Your task to perform on an android device: open chrome privacy settings Image 0: 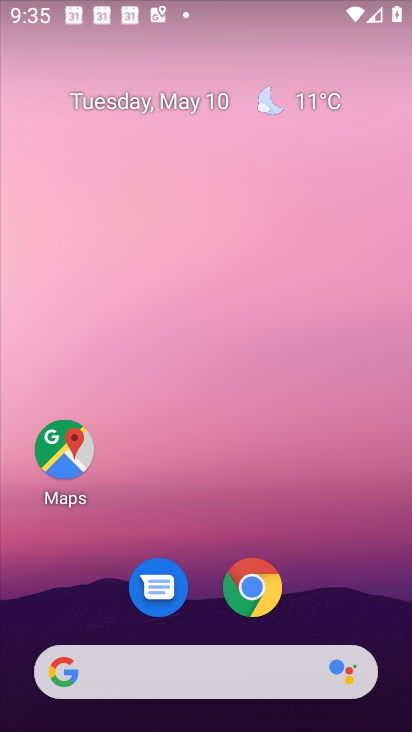
Step 0: drag from (359, 553) to (320, 132)
Your task to perform on an android device: open chrome privacy settings Image 1: 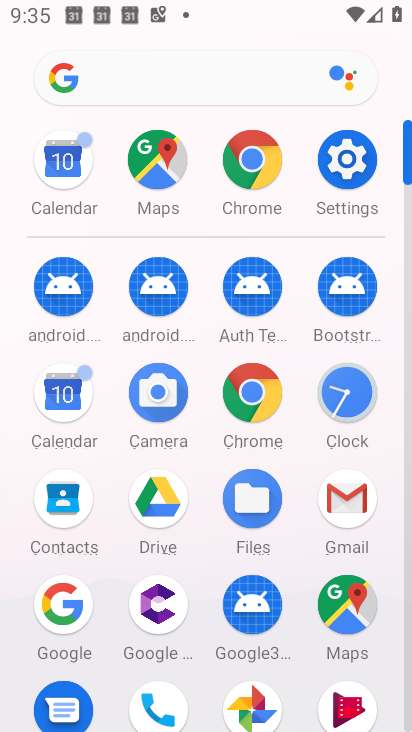
Step 1: click (252, 385)
Your task to perform on an android device: open chrome privacy settings Image 2: 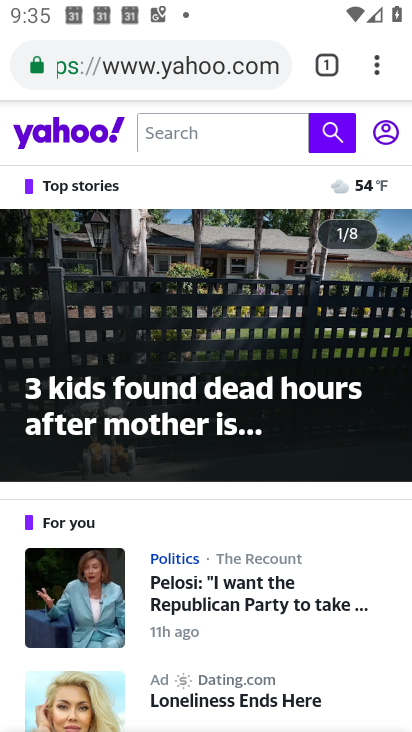
Step 2: drag from (377, 68) to (248, 649)
Your task to perform on an android device: open chrome privacy settings Image 3: 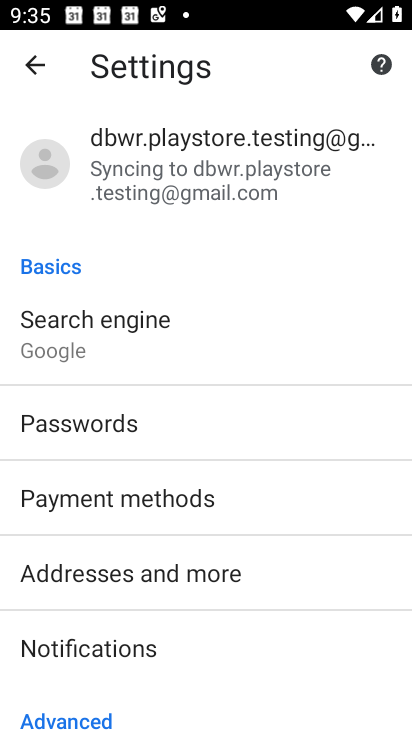
Step 3: drag from (248, 671) to (262, 354)
Your task to perform on an android device: open chrome privacy settings Image 4: 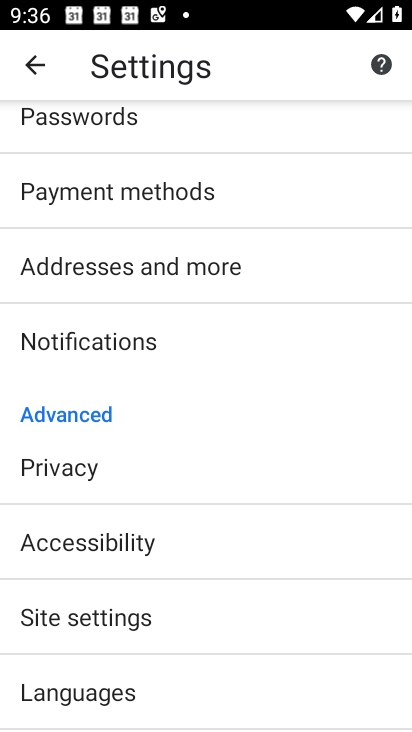
Step 4: click (87, 477)
Your task to perform on an android device: open chrome privacy settings Image 5: 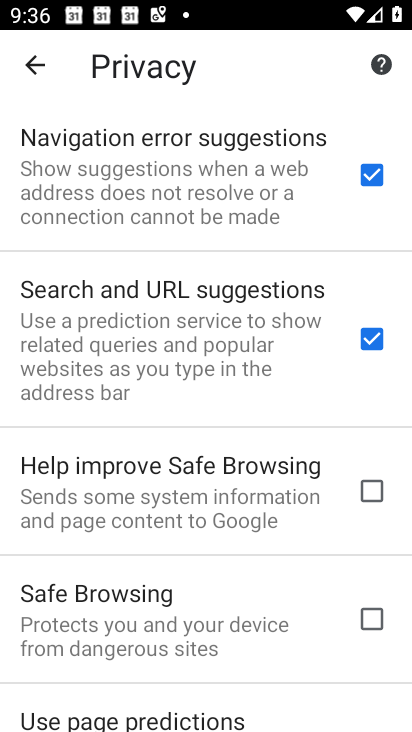
Step 5: task complete